Your task to perform on an android device: open chrome and create a bookmark for the current page Image 0: 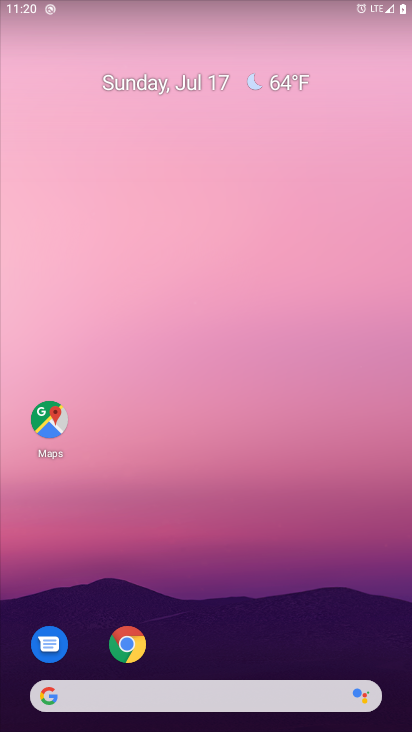
Step 0: press home button
Your task to perform on an android device: open chrome and create a bookmark for the current page Image 1: 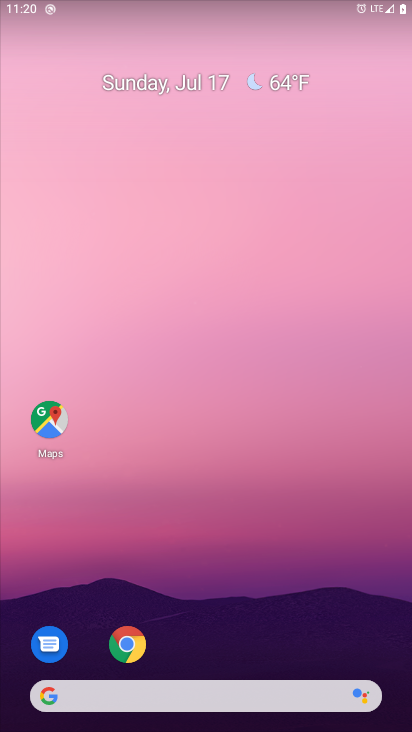
Step 1: click (119, 648)
Your task to perform on an android device: open chrome and create a bookmark for the current page Image 2: 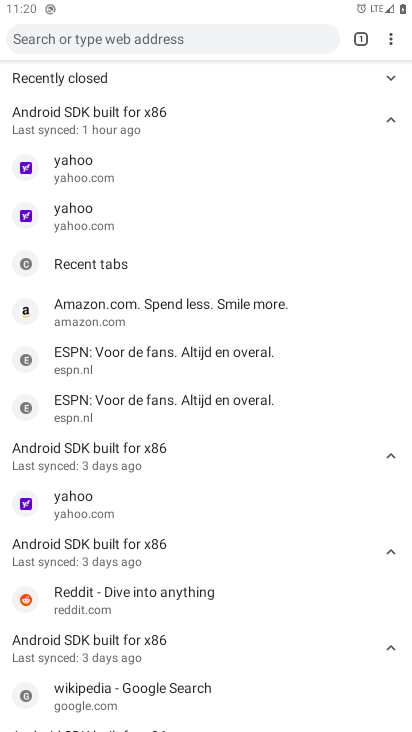
Step 2: drag from (394, 35) to (270, 42)
Your task to perform on an android device: open chrome and create a bookmark for the current page Image 3: 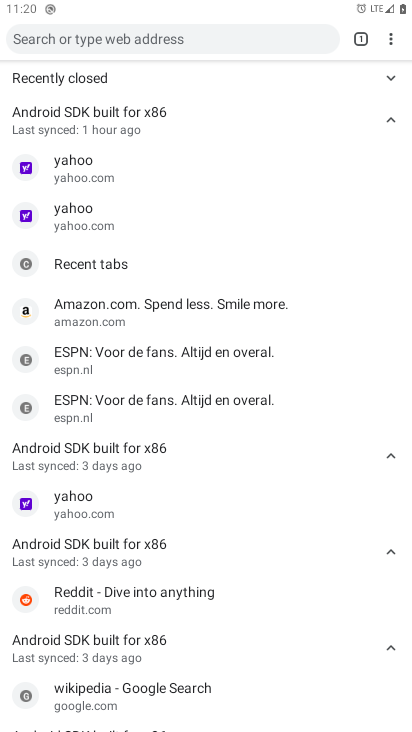
Step 3: click (386, 33)
Your task to perform on an android device: open chrome and create a bookmark for the current page Image 4: 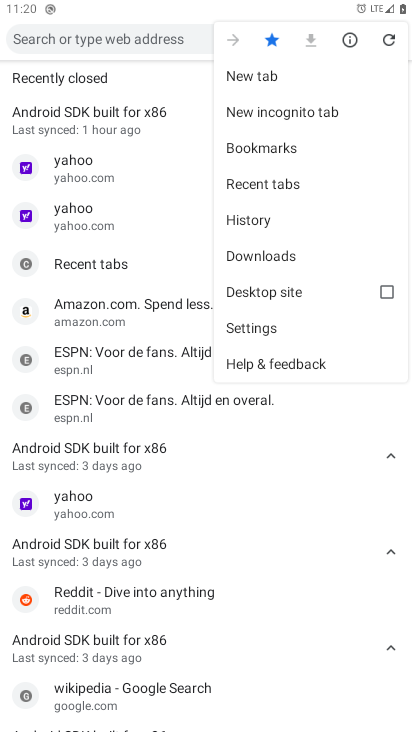
Step 4: task complete